Your task to perform on an android device: set default search engine in the chrome app Image 0: 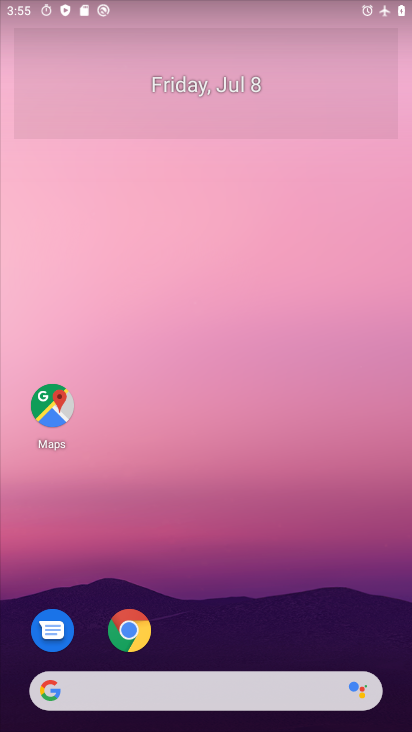
Step 0: click (296, 434)
Your task to perform on an android device: set default search engine in the chrome app Image 1: 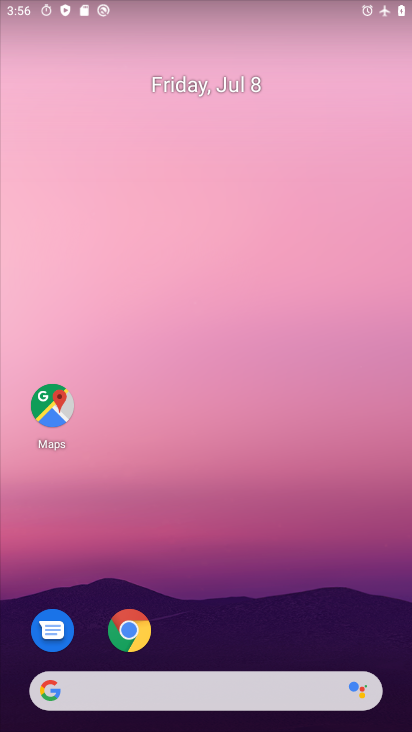
Step 1: task complete